Your task to perform on an android device: Open calendar and show me the second week of next month Image 0: 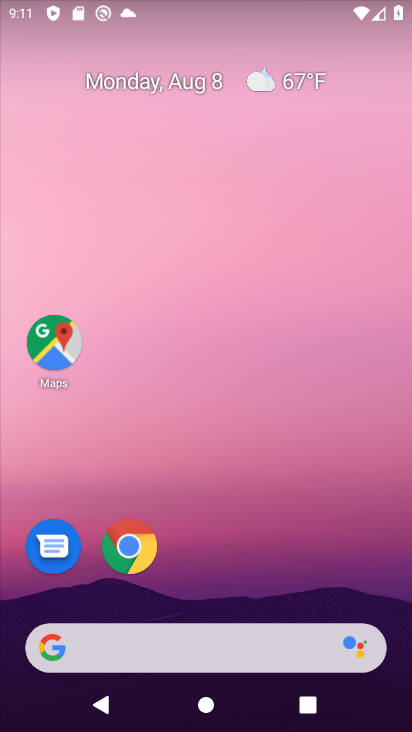
Step 0: drag from (299, 578) to (288, 148)
Your task to perform on an android device: Open calendar and show me the second week of next month Image 1: 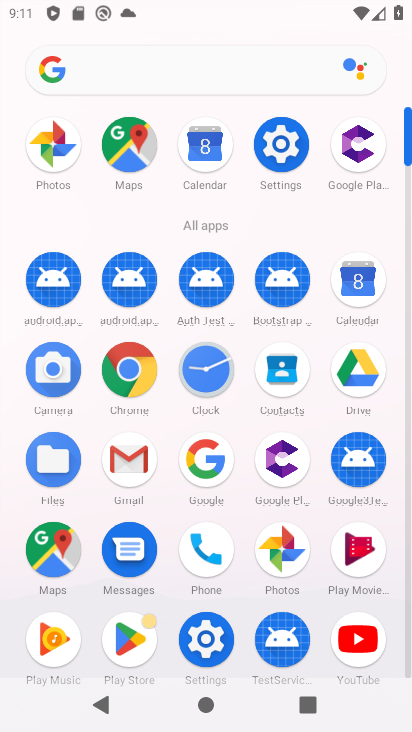
Step 1: click (352, 283)
Your task to perform on an android device: Open calendar and show me the second week of next month Image 2: 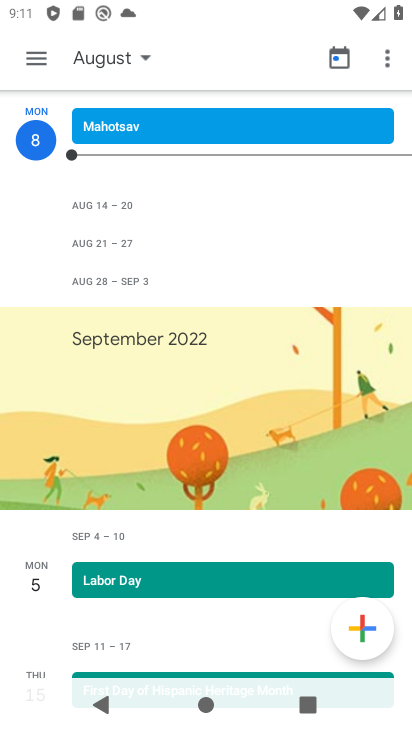
Step 2: click (24, 46)
Your task to perform on an android device: Open calendar and show me the second week of next month Image 3: 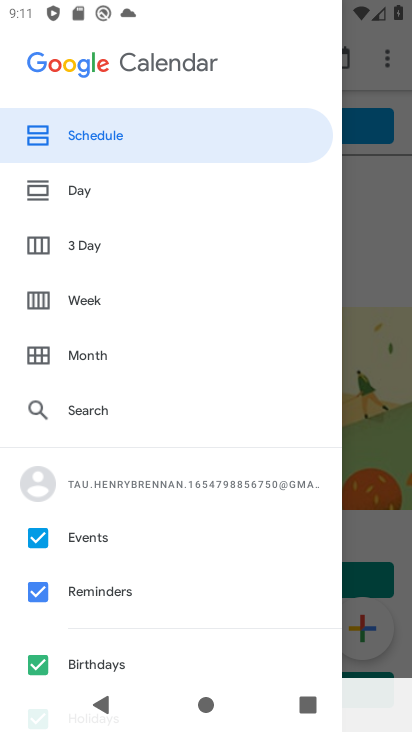
Step 3: click (70, 186)
Your task to perform on an android device: Open calendar and show me the second week of next month Image 4: 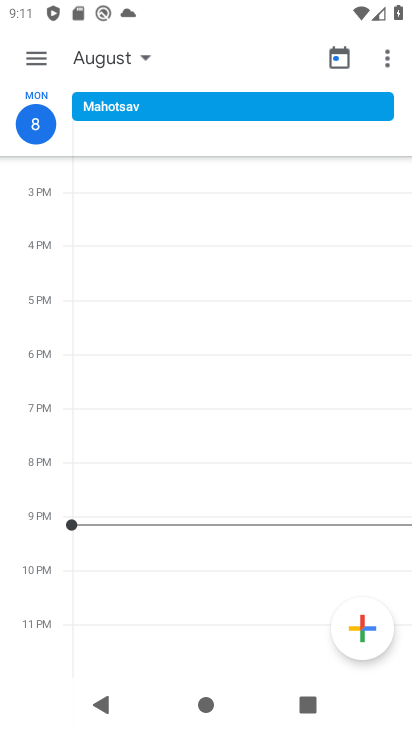
Step 4: task complete